Your task to perform on an android device: Show me the alarms in the clock app Image 0: 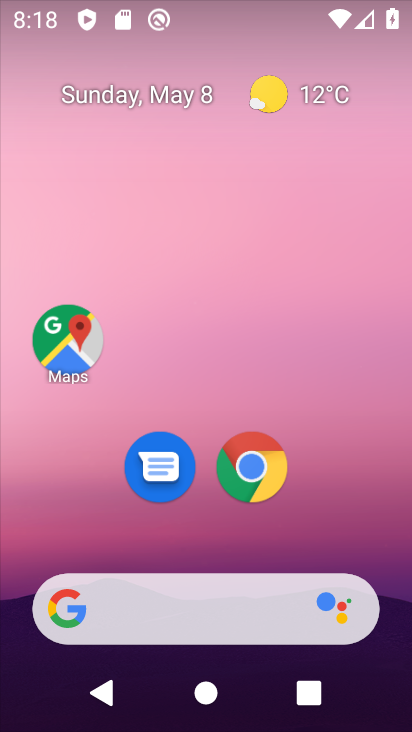
Step 0: drag from (207, 545) to (287, 42)
Your task to perform on an android device: Show me the alarms in the clock app Image 1: 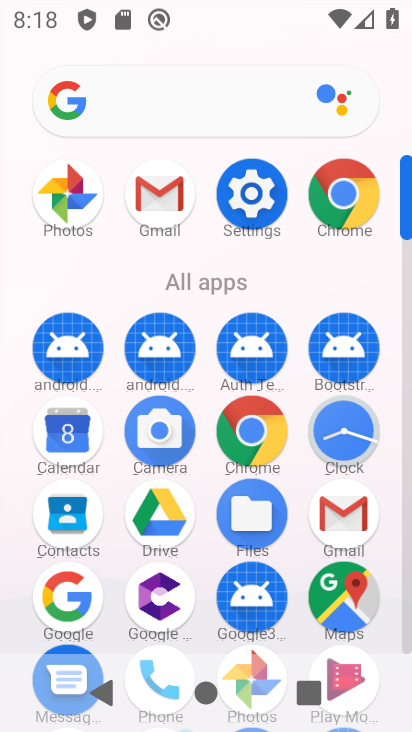
Step 1: click (356, 426)
Your task to perform on an android device: Show me the alarms in the clock app Image 2: 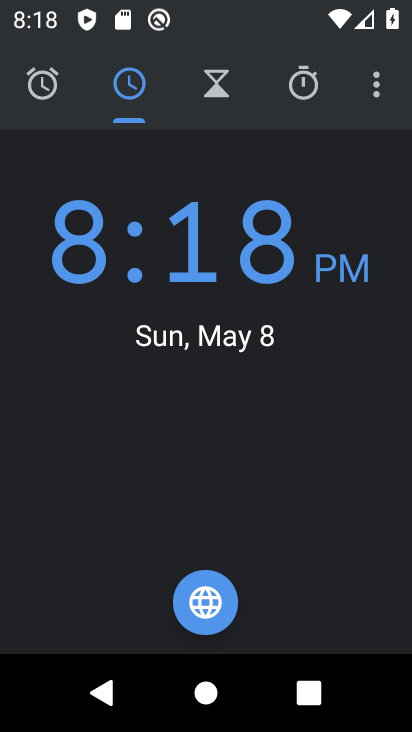
Step 2: click (46, 97)
Your task to perform on an android device: Show me the alarms in the clock app Image 3: 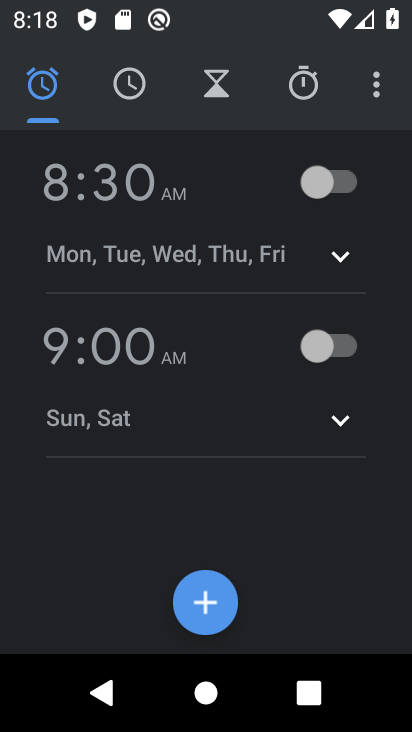
Step 3: task complete